Your task to perform on an android device: turn off javascript in the chrome app Image 0: 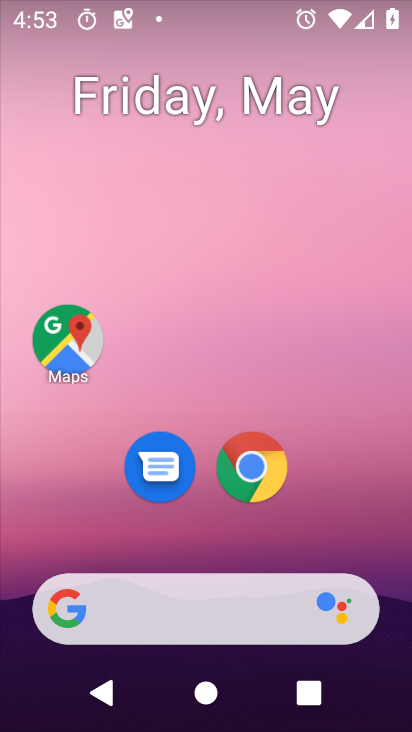
Step 0: click (250, 456)
Your task to perform on an android device: turn off javascript in the chrome app Image 1: 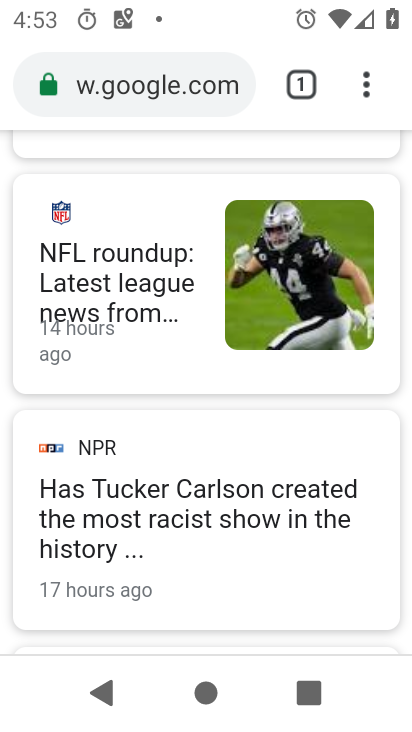
Step 1: drag from (368, 85) to (188, 527)
Your task to perform on an android device: turn off javascript in the chrome app Image 2: 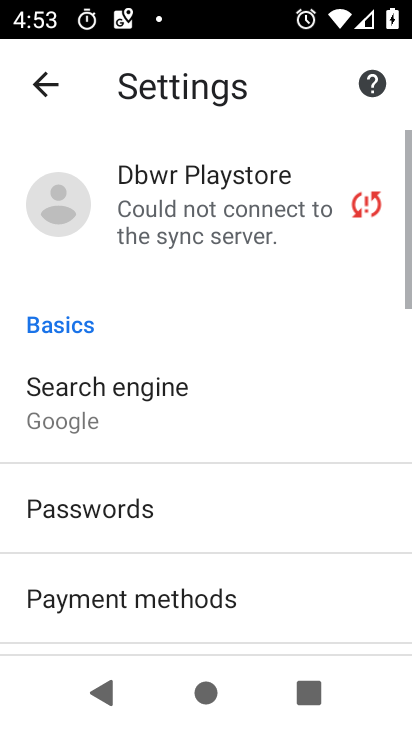
Step 2: drag from (319, 605) to (349, 150)
Your task to perform on an android device: turn off javascript in the chrome app Image 3: 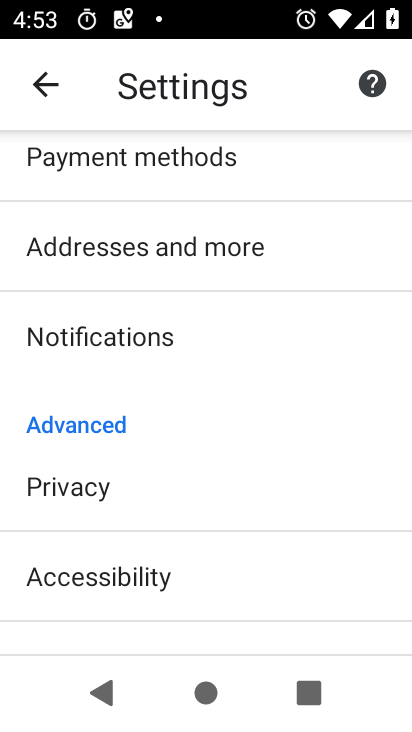
Step 3: drag from (257, 535) to (294, 99)
Your task to perform on an android device: turn off javascript in the chrome app Image 4: 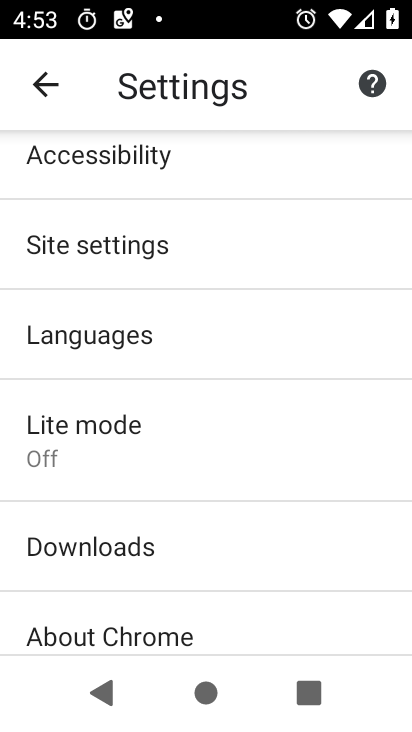
Step 4: click (158, 238)
Your task to perform on an android device: turn off javascript in the chrome app Image 5: 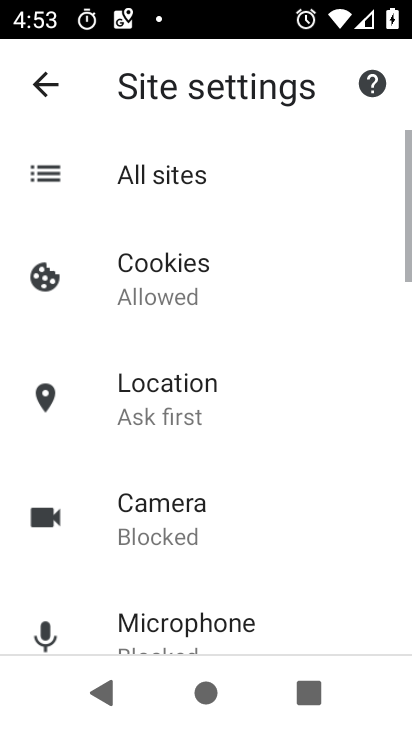
Step 5: drag from (232, 544) to (248, 97)
Your task to perform on an android device: turn off javascript in the chrome app Image 6: 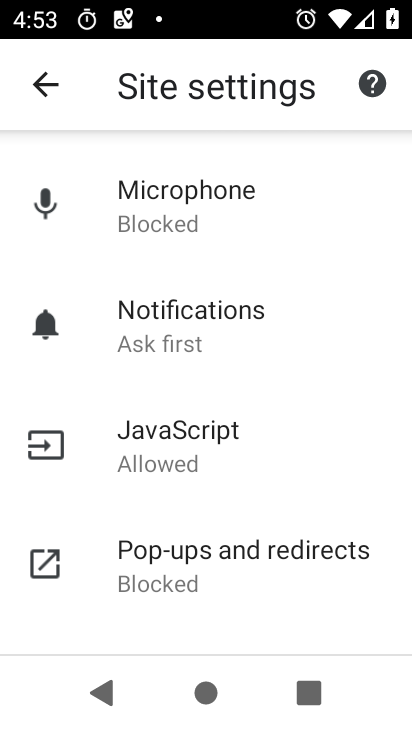
Step 6: click (202, 459)
Your task to perform on an android device: turn off javascript in the chrome app Image 7: 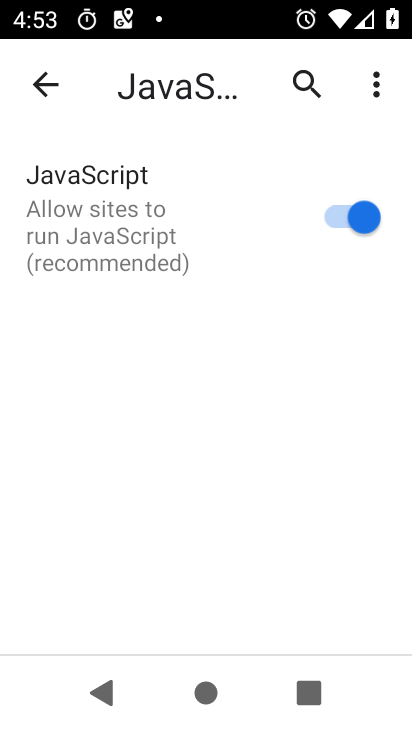
Step 7: click (359, 207)
Your task to perform on an android device: turn off javascript in the chrome app Image 8: 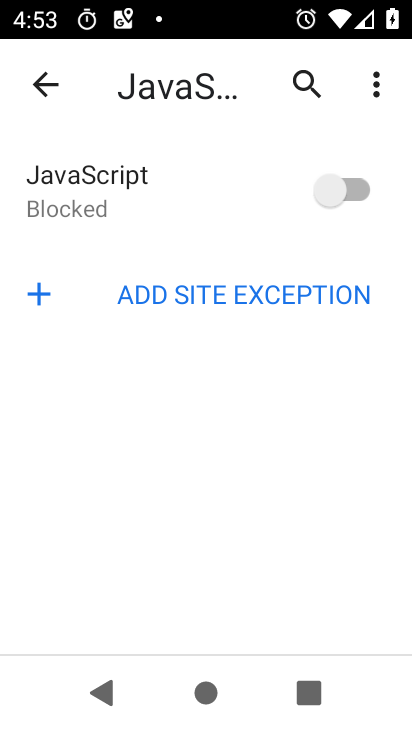
Step 8: task complete